Your task to perform on an android device: clear history in the chrome app Image 0: 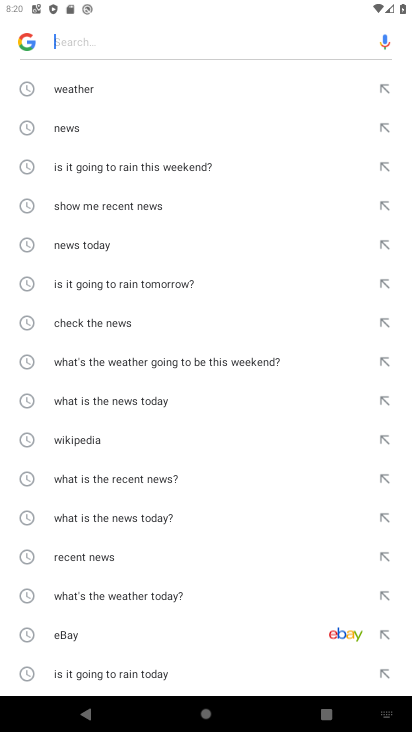
Step 0: press back button
Your task to perform on an android device: clear history in the chrome app Image 1: 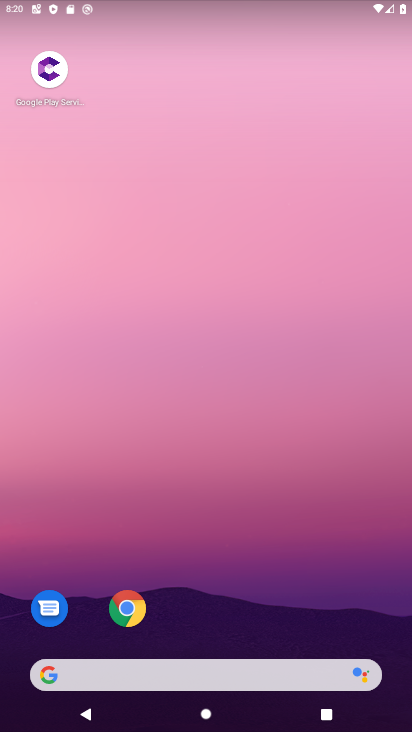
Step 1: click (131, 624)
Your task to perform on an android device: clear history in the chrome app Image 2: 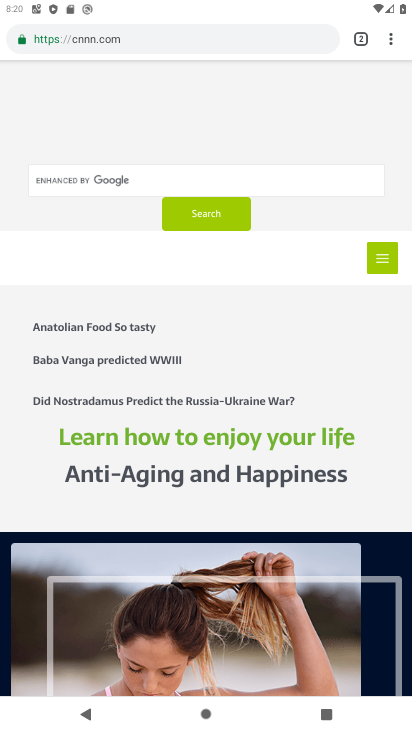
Step 2: click (396, 41)
Your task to perform on an android device: clear history in the chrome app Image 3: 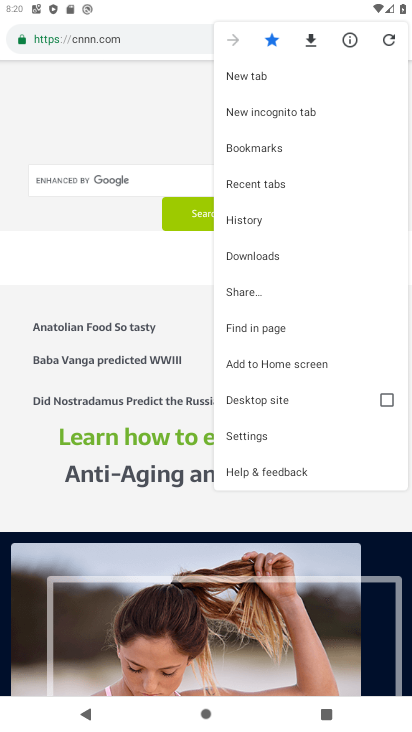
Step 3: click (267, 218)
Your task to perform on an android device: clear history in the chrome app Image 4: 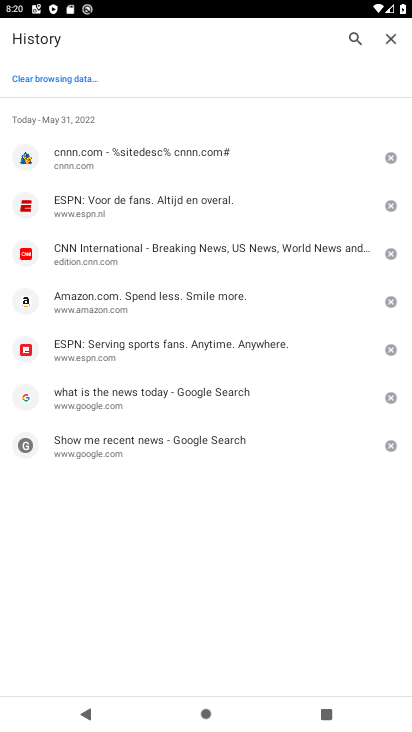
Step 4: click (57, 71)
Your task to perform on an android device: clear history in the chrome app Image 5: 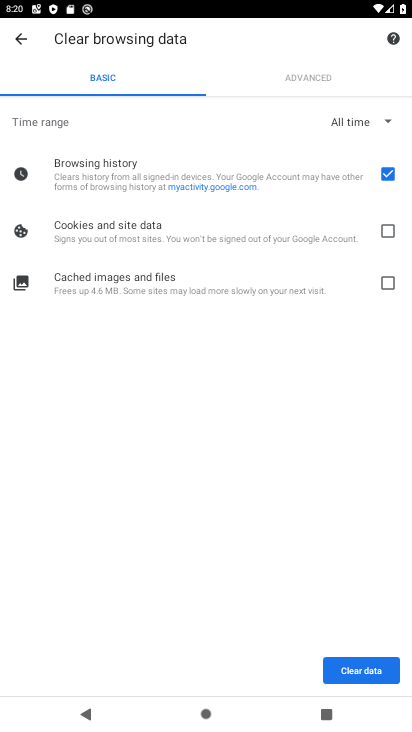
Step 5: click (387, 226)
Your task to perform on an android device: clear history in the chrome app Image 6: 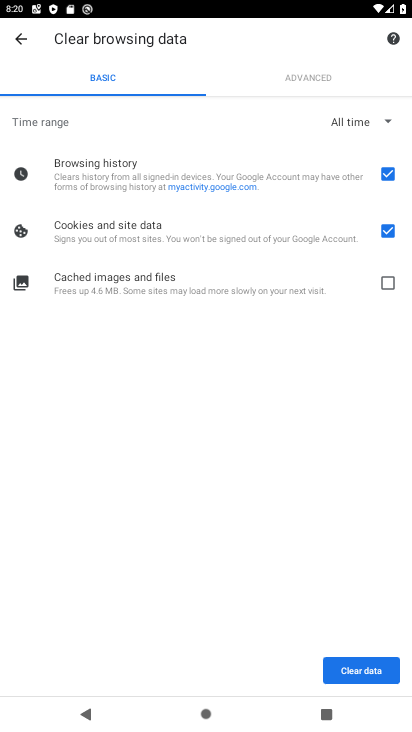
Step 6: click (388, 278)
Your task to perform on an android device: clear history in the chrome app Image 7: 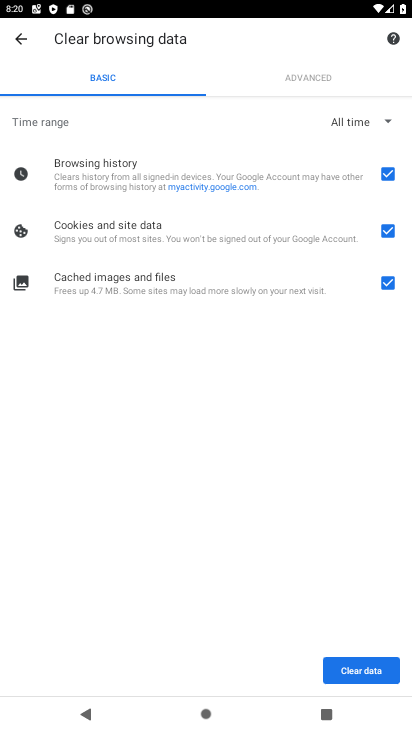
Step 7: click (347, 669)
Your task to perform on an android device: clear history in the chrome app Image 8: 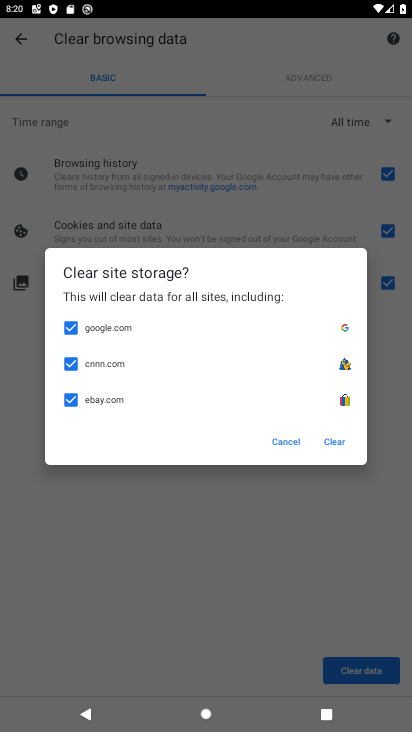
Step 8: click (333, 442)
Your task to perform on an android device: clear history in the chrome app Image 9: 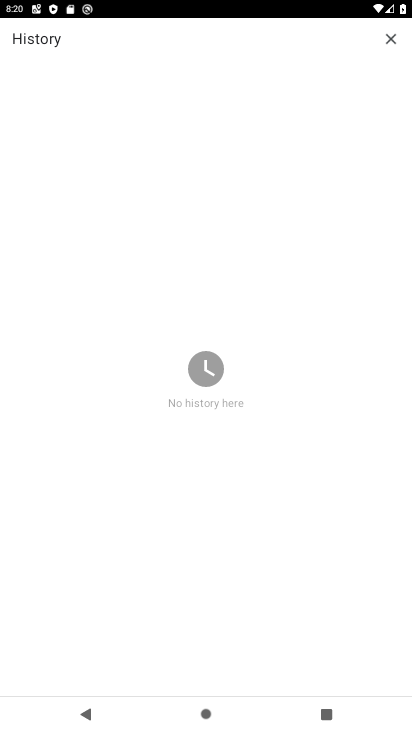
Step 9: task complete